Your task to perform on an android device: Go to calendar. Show me events next week Image 0: 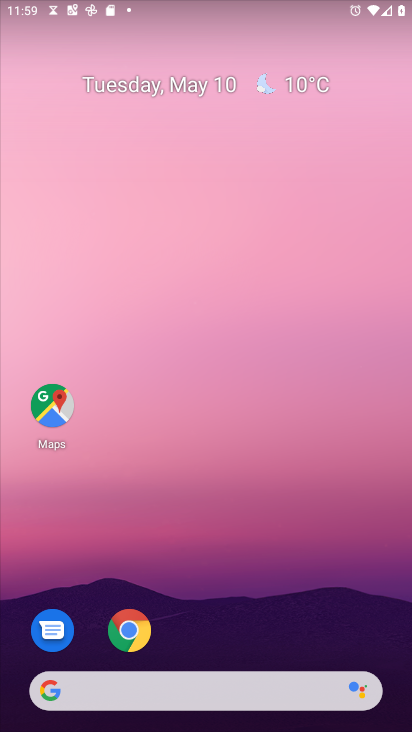
Step 0: click (206, 80)
Your task to perform on an android device: Go to calendar. Show me events next week Image 1: 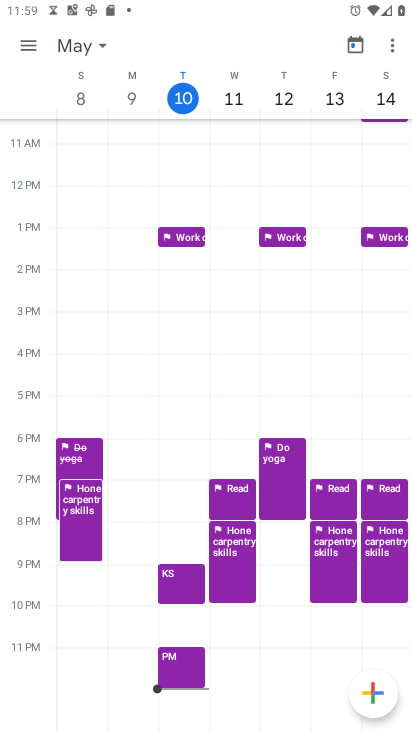
Step 1: drag from (343, 359) to (28, 360)
Your task to perform on an android device: Go to calendar. Show me events next week Image 2: 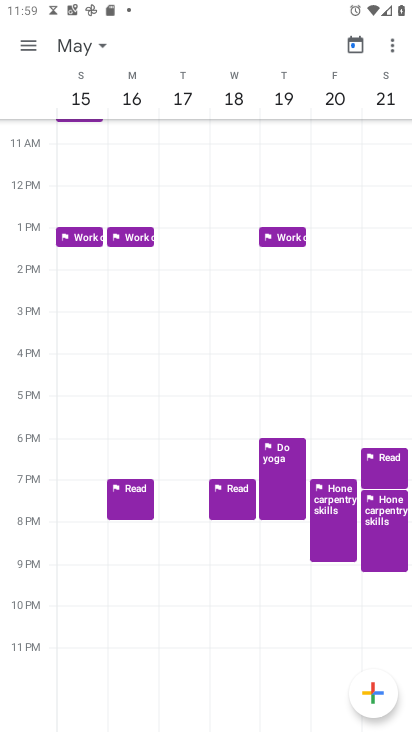
Step 2: click (31, 41)
Your task to perform on an android device: Go to calendar. Show me events next week Image 3: 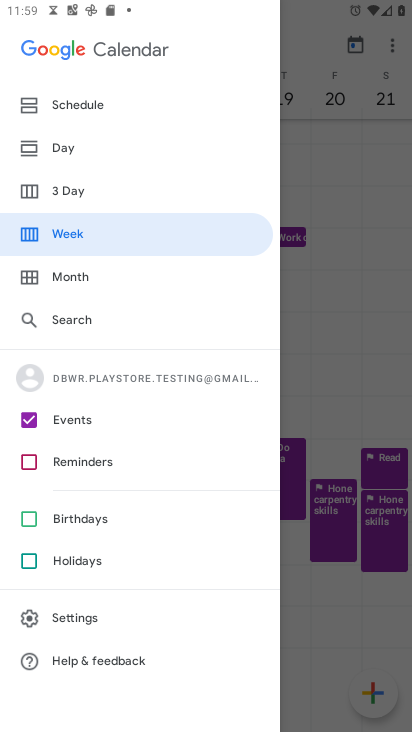
Step 3: click (374, 236)
Your task to perform on an android device: Go to calendar. Show me events next week Image 4: 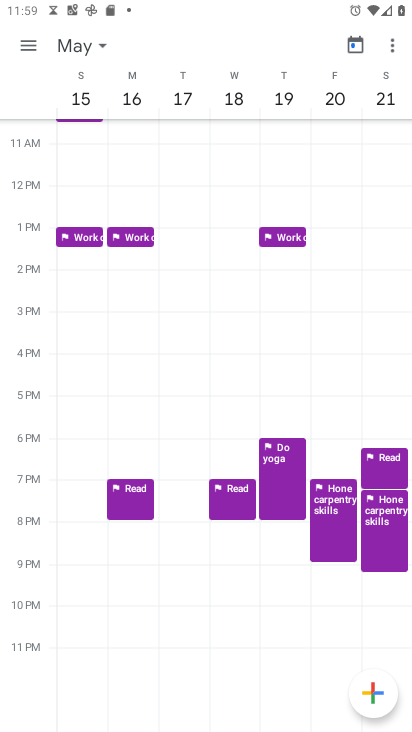
Step 4: task complete